Your task to perform on an android device: Search for macbook on walmart.com, select the first entry, add it to the cart, then select checkout. Image 0: 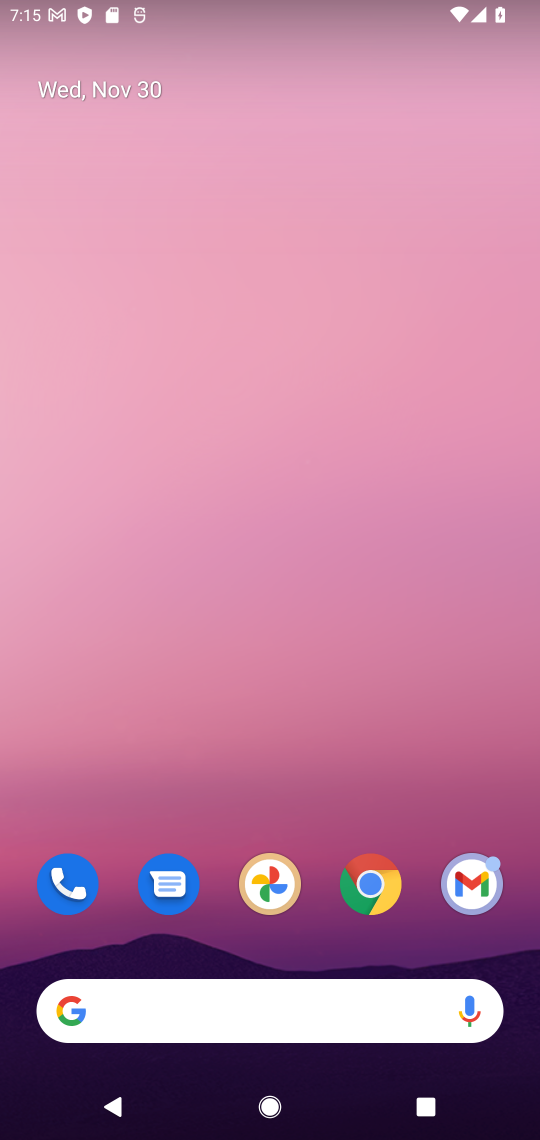
Step 0: click (370, 887)
Your task to perform on an android device: Search for macbook on walmart.com, select the first entry, add it to the cart, then select checkout. Image 1: 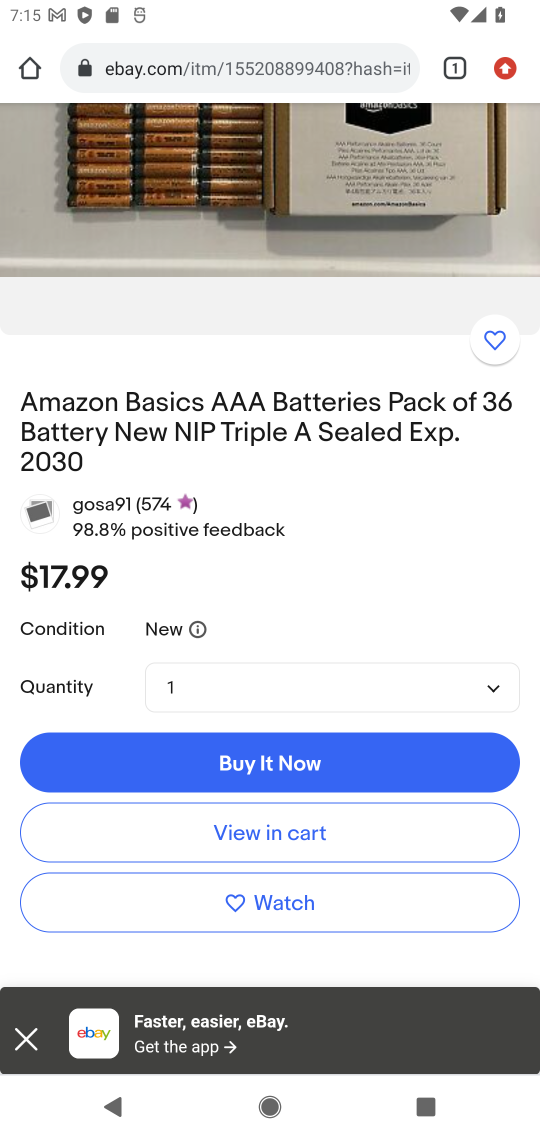
Step 1: click (189, 68)
Your task to perform on an android device: Search for macbook on walmart.com, select the first entry, add it to the cart, then select checkout. Image 2: 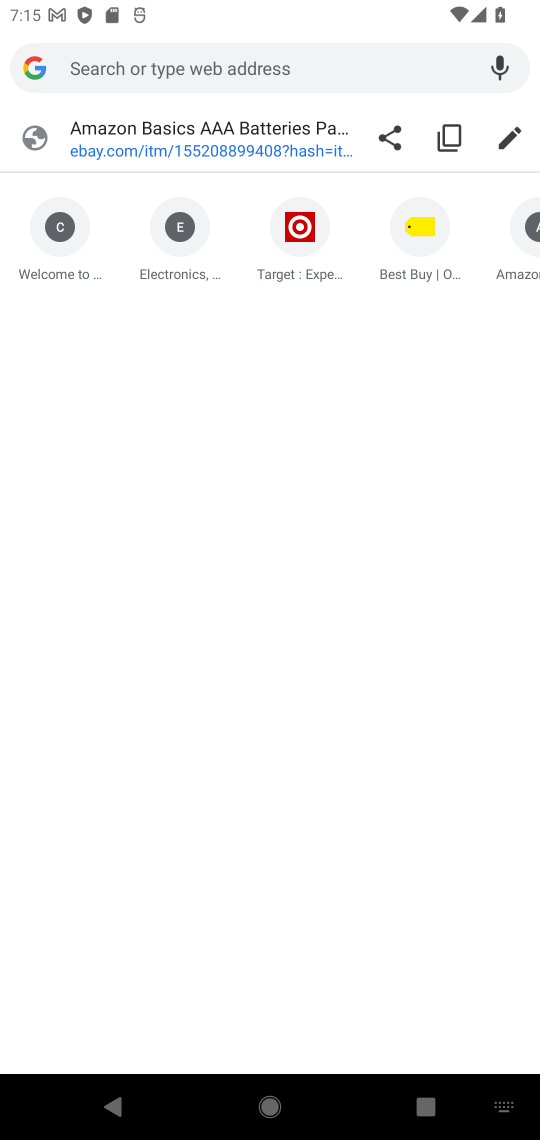
Step 2: type "walmart.com"
Your task to perform on an android device: Search for macbook on walmart.com, select the first entry, add it to the cart, then select checkout. Image 3: 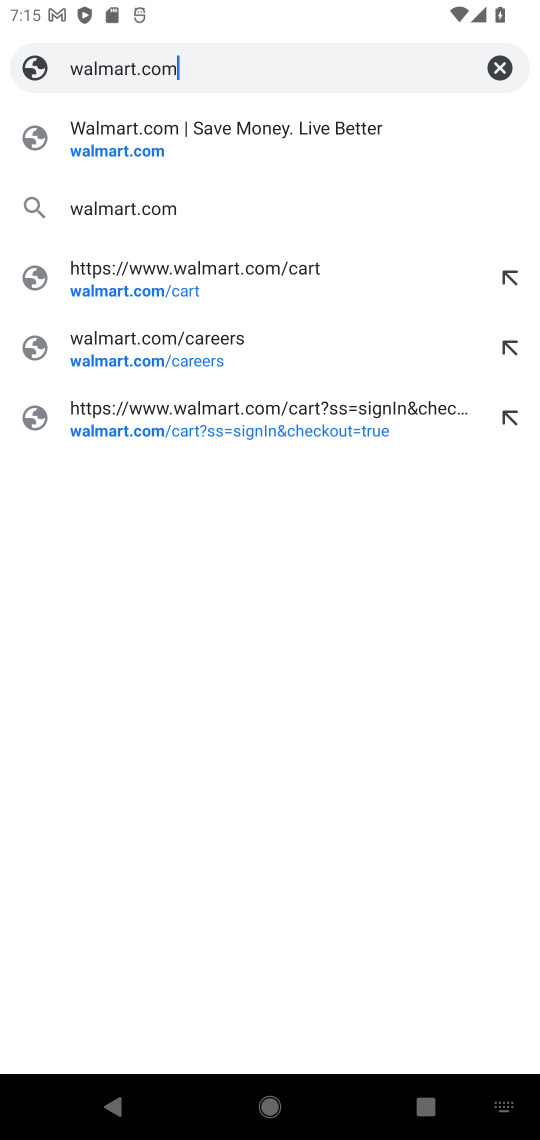
Step 3: click (95, 161)
Your task to perform on an android device: Search for macbook on walmart.com, select the first entry, add it to the cart, then select checkout. Image 4: 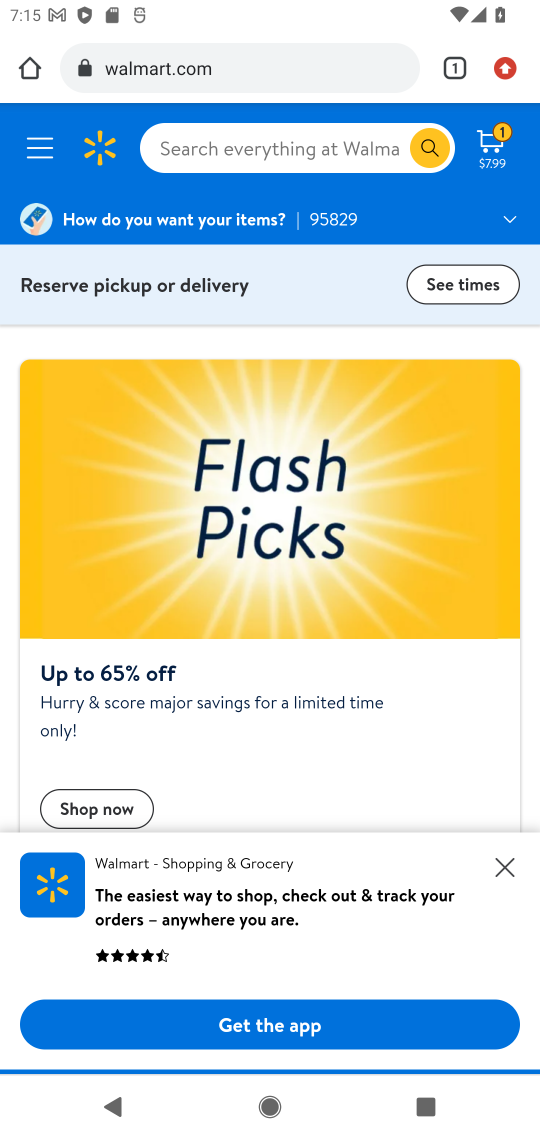
Step 4: click (221, 152)
Your task to perform on an android device: Search for macbook on walmart.com, select the first entry, add it to the cart, then select checkout. Image 5: 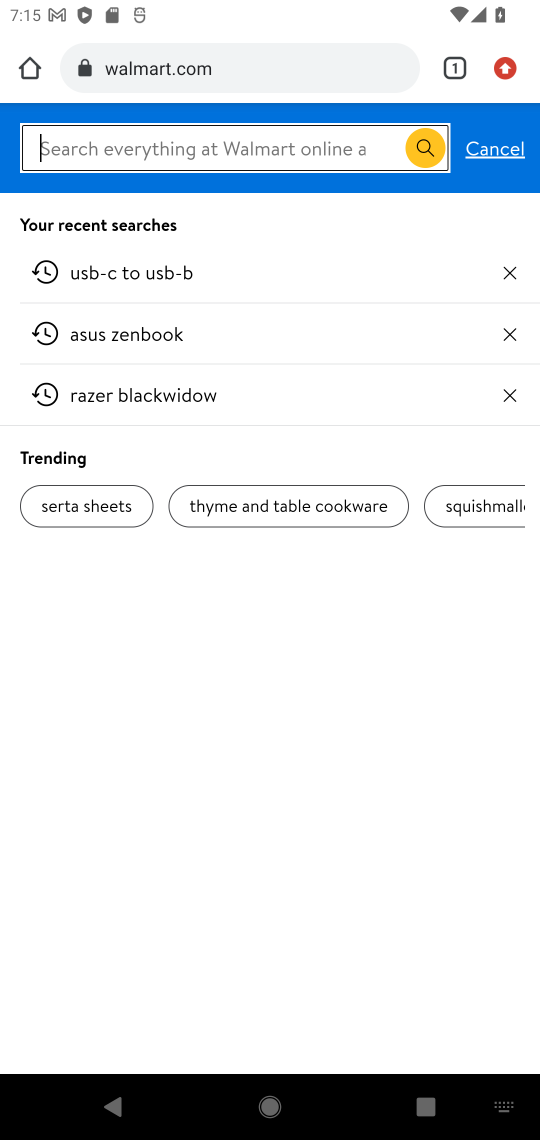
Step 5: type "macbook"
Your task to perform on an android device: Search for macbook on walmart.com, select the first entry, add it to the cart, then select checkout. Image 6: 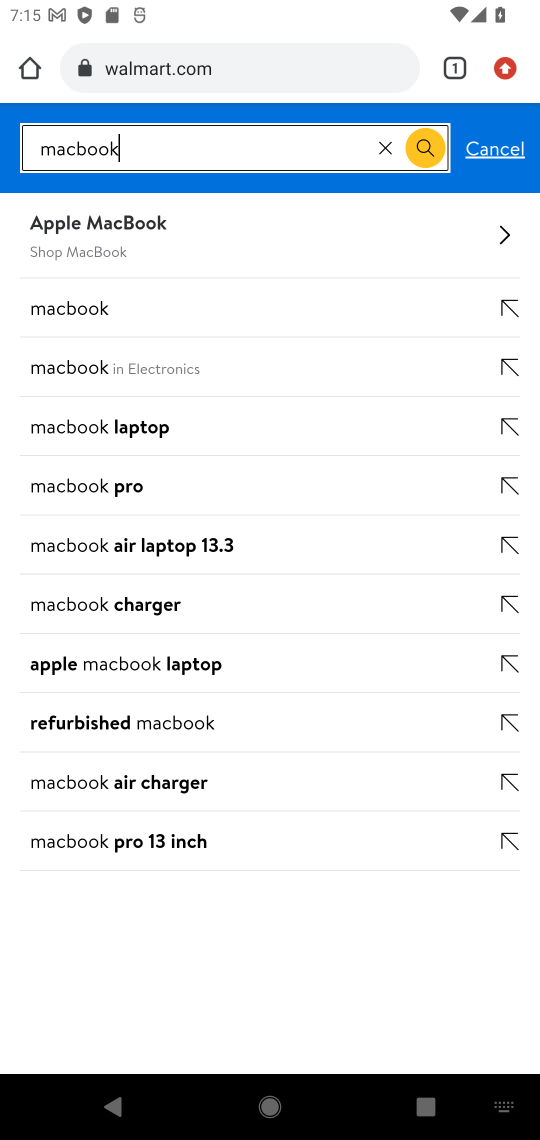
Step 6: click (102, 224)
Your task to perform on an android device: Search for macbook on walmart.com, select the first entry, add it to the cart, then select checkout. Image 7: 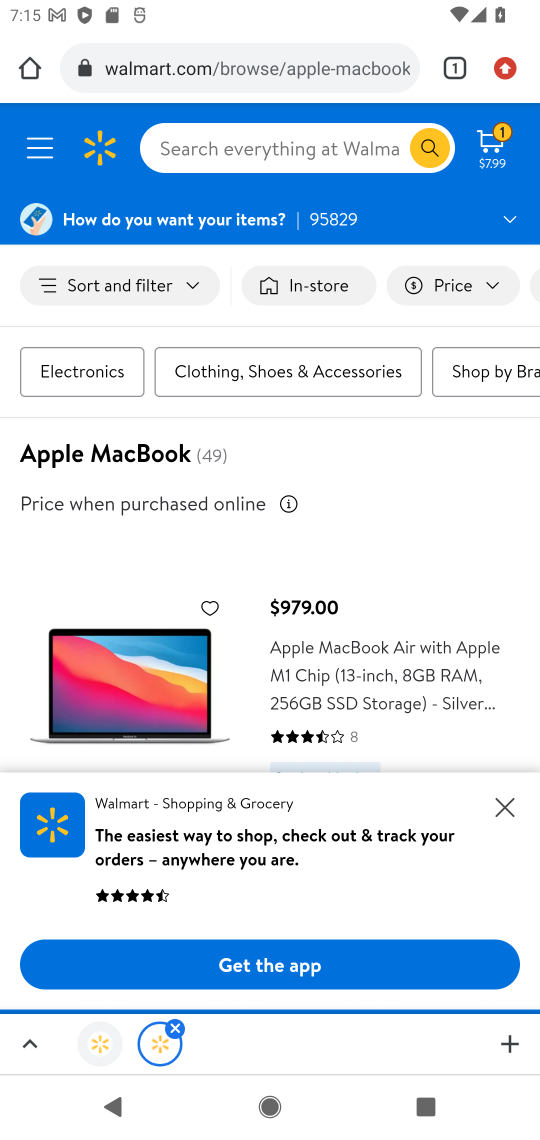
Step 7: click (499, 815)
Your task to perform on an android device: Search for macbook on walmart.com, select the first entry, add it to the cart, then select checkout. Image 8: 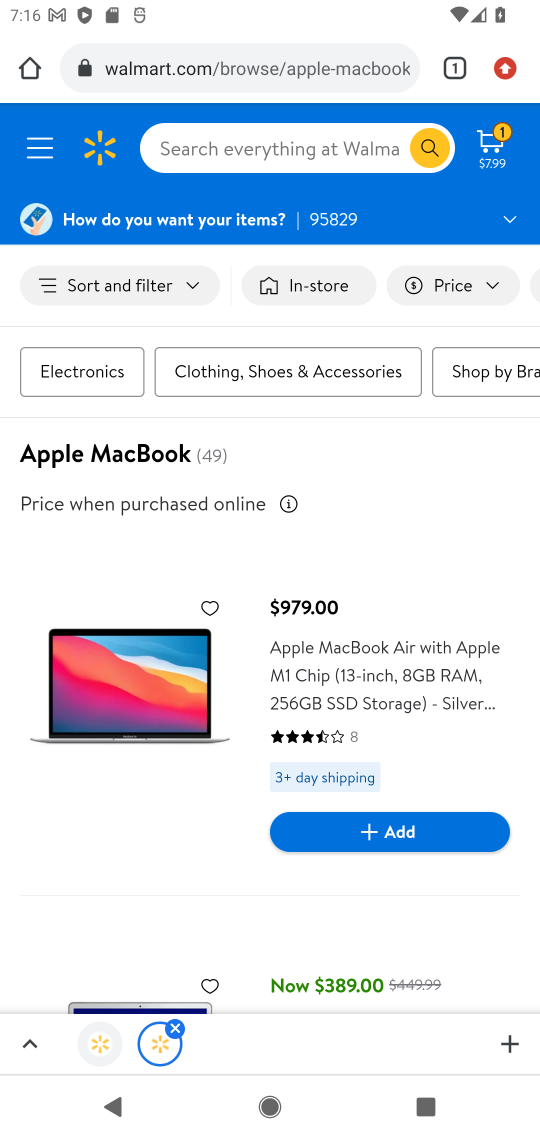
Step 8: click (412, 836)
Your task to perform on an android device: Search for macbook on walmart.com, select the first entry, add it to the cart, then select checkout. Image 9: 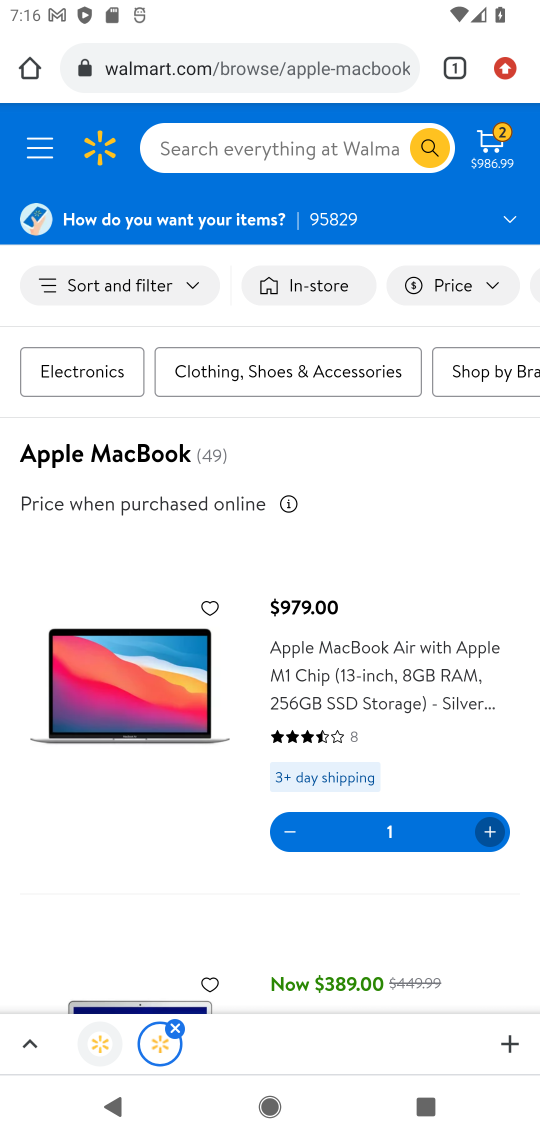
Step 9: click (492, 150)
Your task to perform on an android device: Search for macbook on walmart.com, select the first entry, add it to the cart, then select checkout. Image 10: 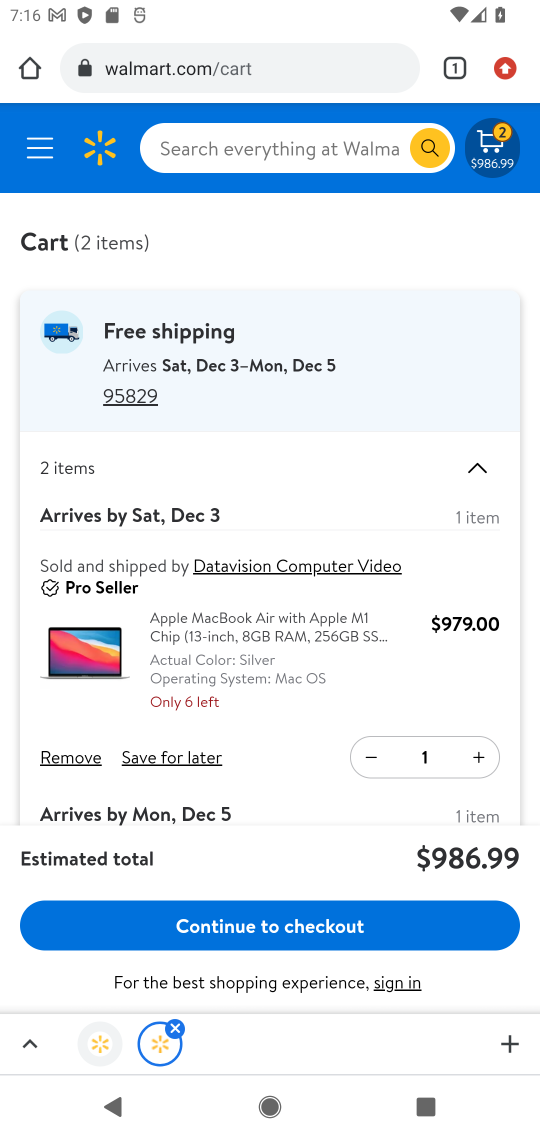
Step 10: click (257, 940)
Your task to perform on an android device: Search for macbook on walmart.com, select the first entry, add it to the cart, then select checkout. Image 11: 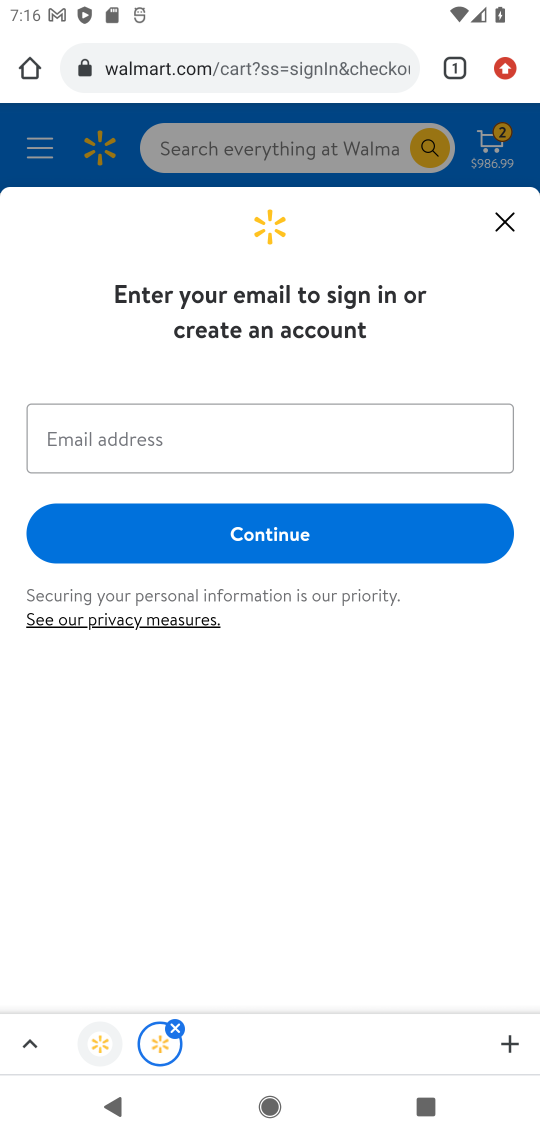
Step 11: task complete